Your task to perform on an android device: What's on my calendar tomorrow? Image 0: 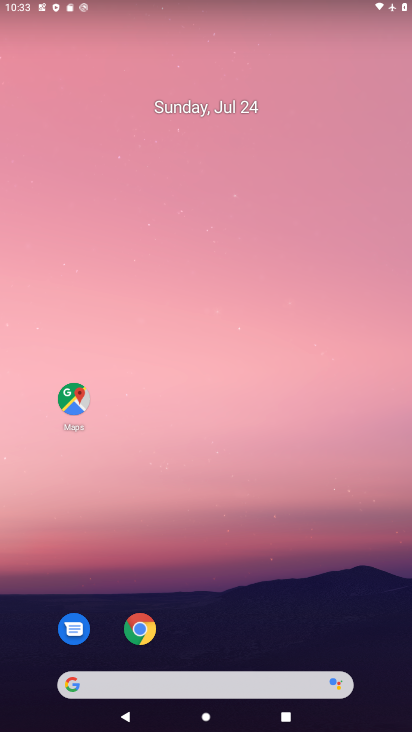
Step 0: drag from (244, 638) to (208, 49)
Your task to perform on an android device: What's on my calendar tomorrow? Image 1: 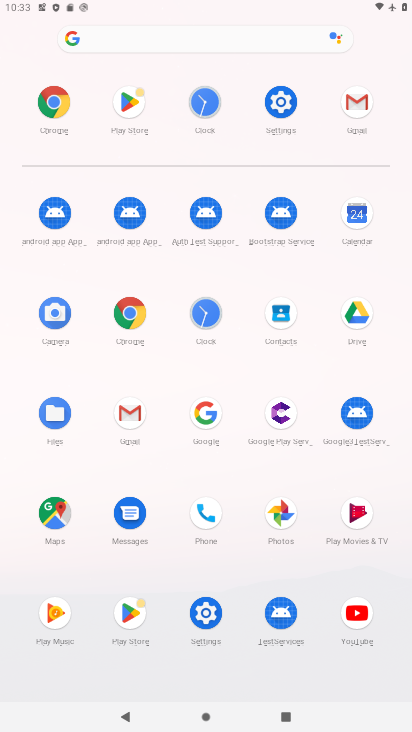
Step 1: click (353, 223)
Your task to perform on an android device: What's on my calendar tomorrow? Image 2: 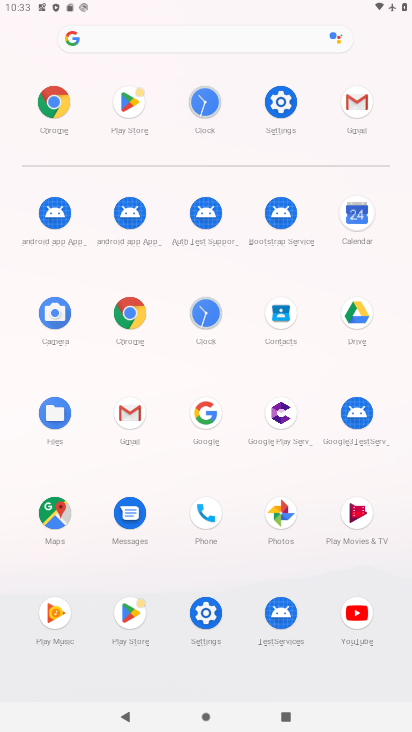
Step 2: task complete